Your task to perform on an android device: Open display settings Image 0: 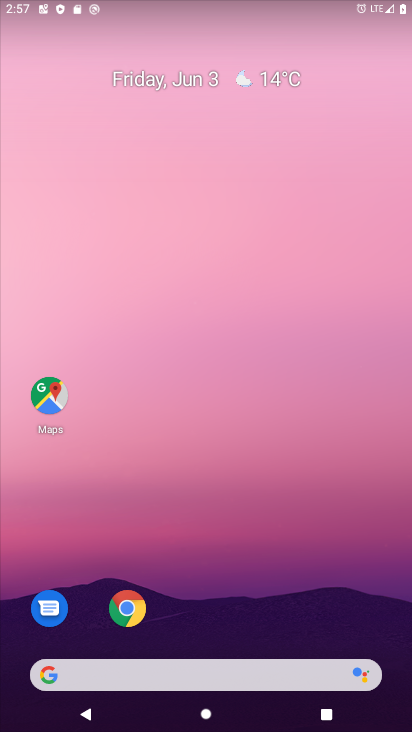
Step 0: drag from (175, 674) to (247, 105)
Your task to perform on an android device: Open display settings Image 1: 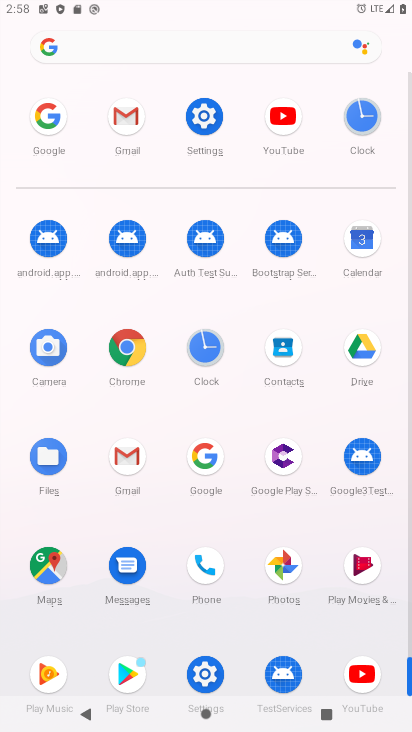
Step 1: click (200, 114)
Your task to perform on an android device: Open display settings Image 2: 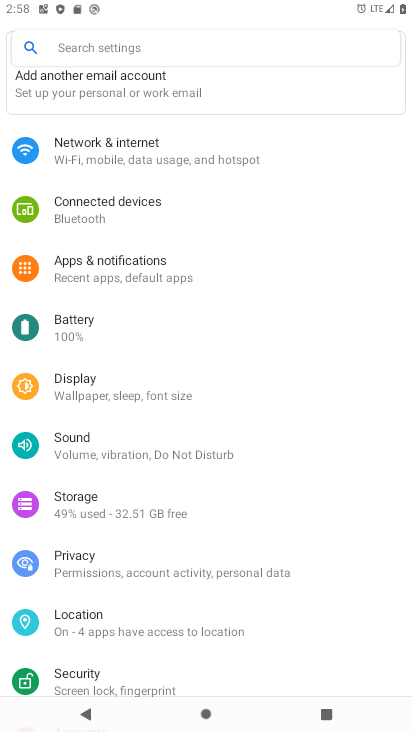
Step 2: click (89, 388)
Your task to perform on an android device: Open display settings Image 3: 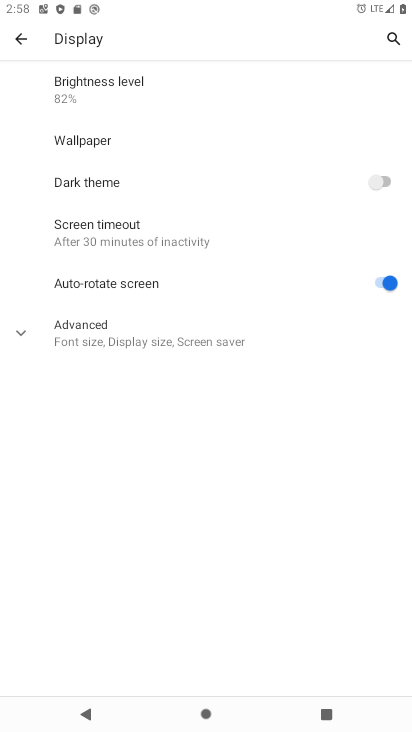
Step 3: task complete